Your task to perform on an android device: turn on javascript in the chrome app Image 0: 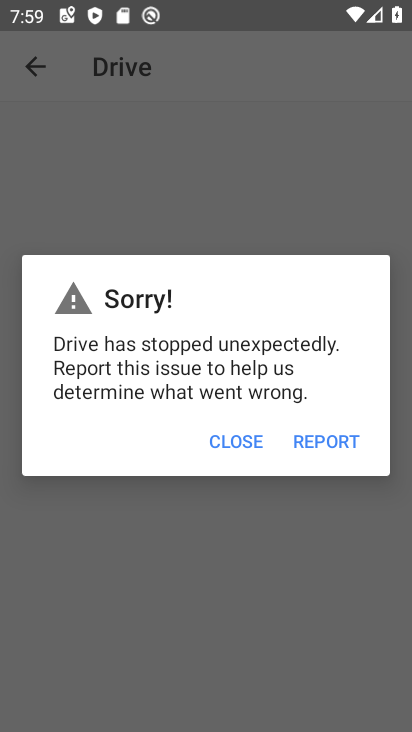
Step 0: press home button
Your task to perform on an android device: turn on javascript in the chrome app Image 1: 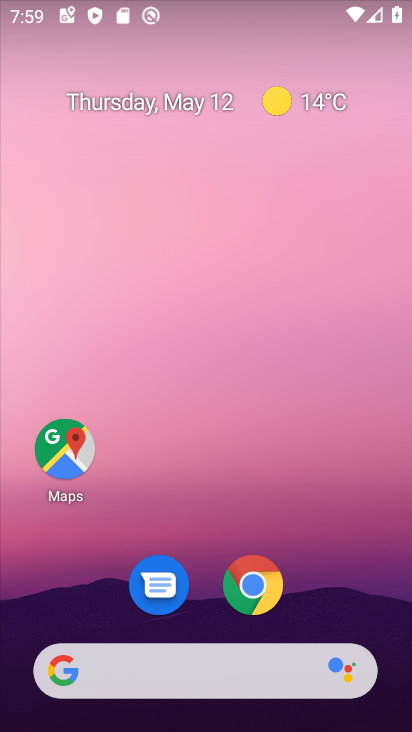
Step 1: click (254, 563)
Your task to perform on an android device: turn on javascript in the chrome app Image 2: 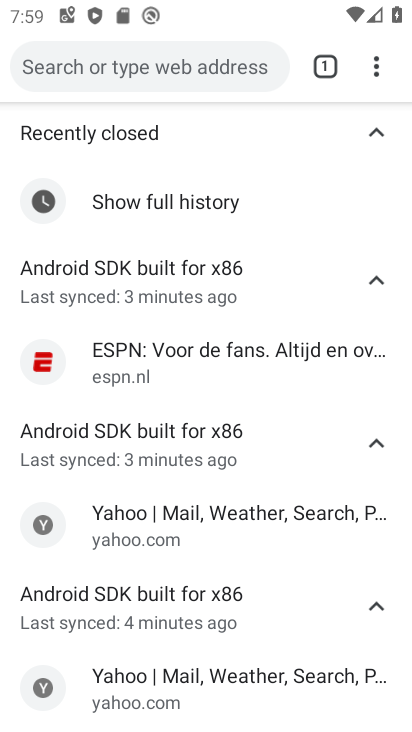
Step 2: click (375, 66)
Your task to perform on an android device: turn on javascript in the chrome app Image 3: 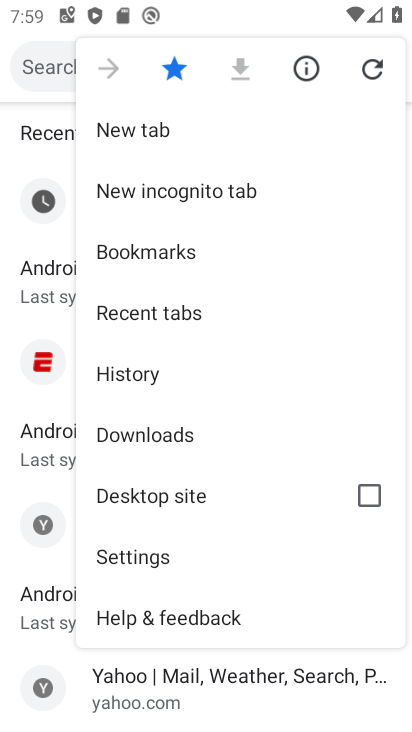
Step 3: click (233, 555)
Your task to perform on an android device: turn on javascript in the chrome app Image 4: 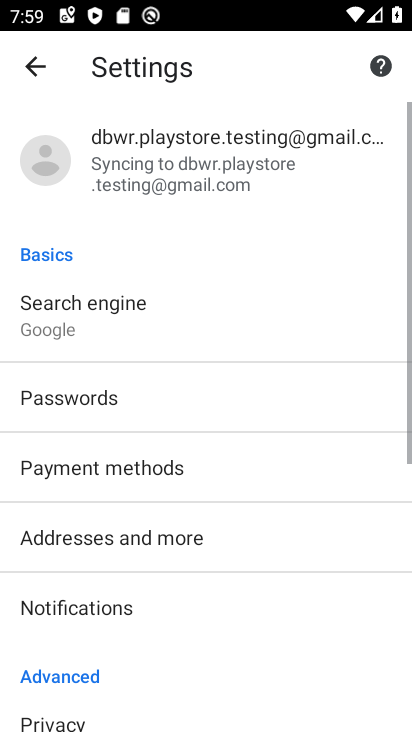
Step 4: drag from (233, 544) to (250, 136)
Your task to perform on an android device: turn on javascript in the chrome app Image 5: 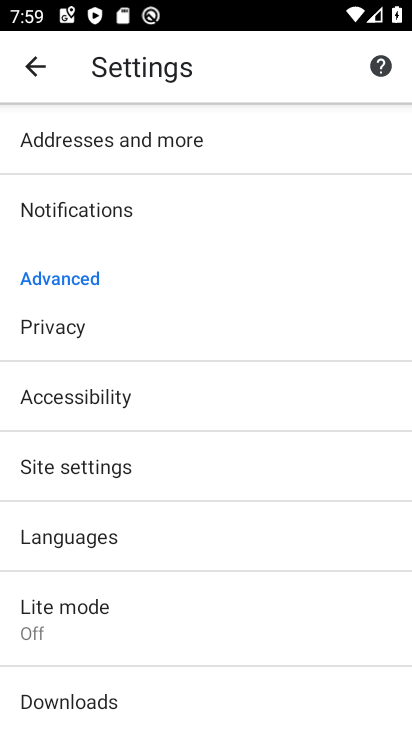
Step 5: click (181, 467)
Your task to perform on an android device: turn on javascript in the chrome app Image 6: 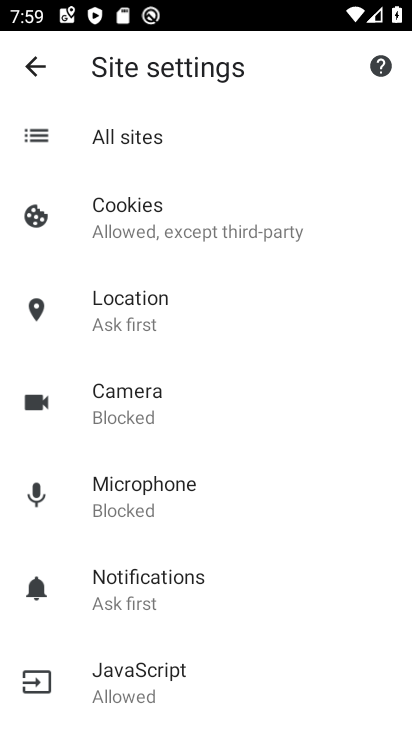
Step 6: click (219, 680)
Your task to perform on an android device: turn on javascript in the chrome app Image 7: 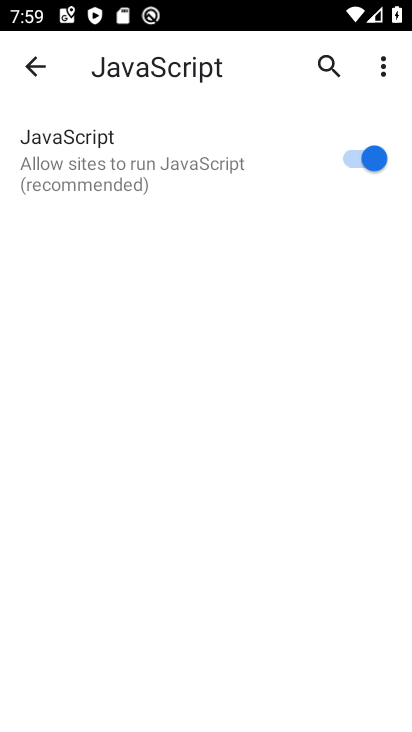
Step 7: task complete